Your task to perform on an android device: Go to Yahoo.com Image 0: 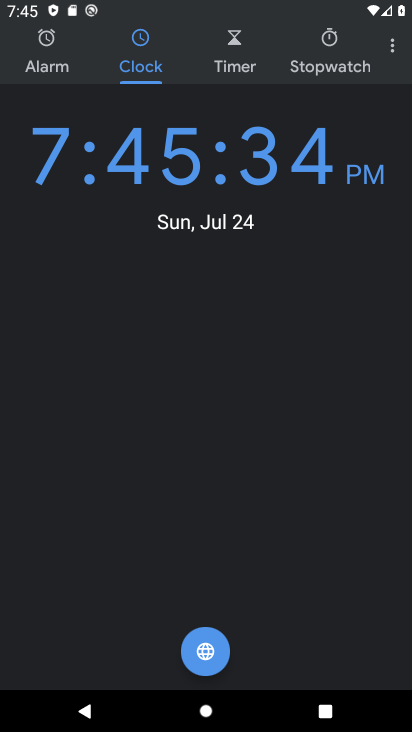
Step 0: press home button
Your task to perform on an android device: Go to Yahoo.com Image 1: 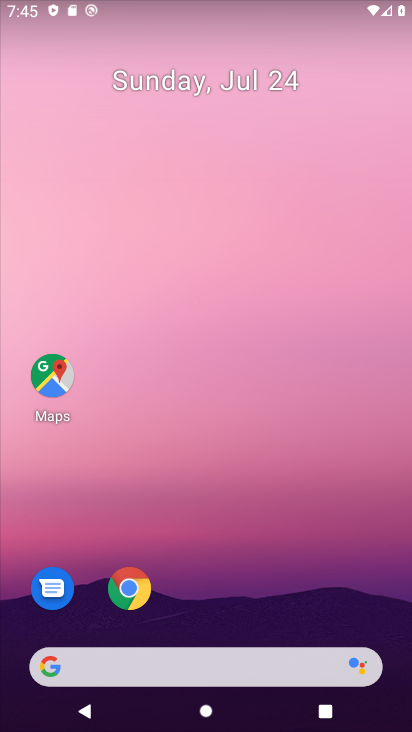
Step 1: click (280, 670)
Your task to perform on an android device: Go to Yahoo.com Image 2: 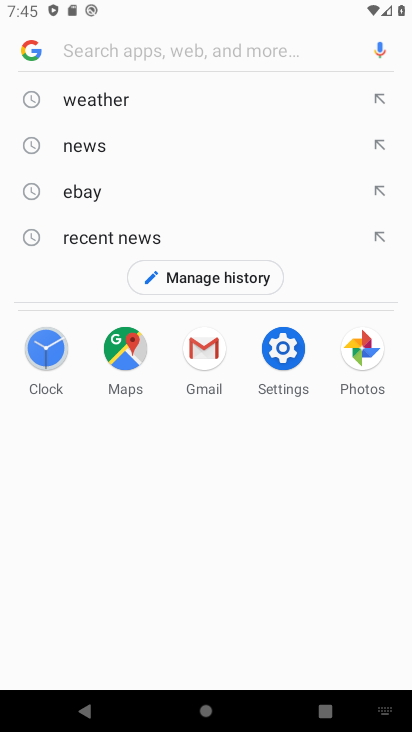
Step 2: type "yahoo.com"
Your task to perform on an android device: Go to Yahoo.com Image 3: 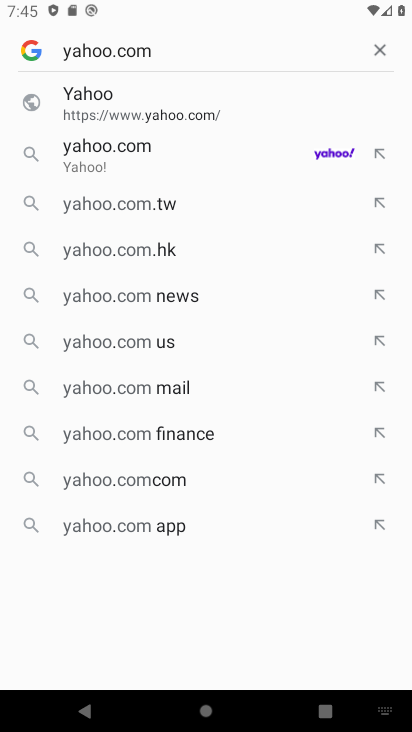
Step 3: click (180, 105)
Your task to perform on an android device: Go to Yahoo.com Image 4: 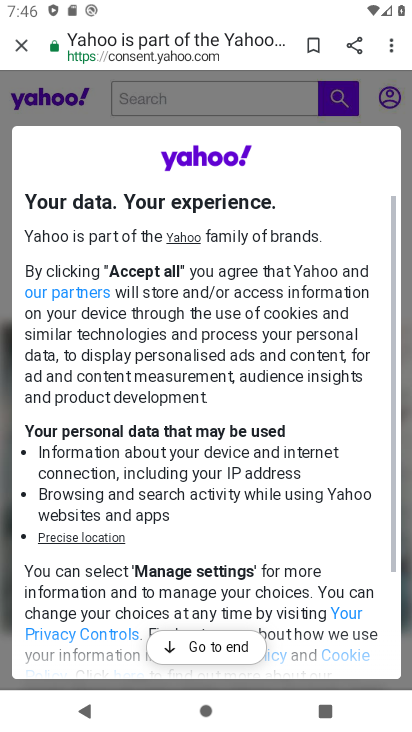
Step 4: task complete